Your task to perform on an android device: Go to Amazon Image 0: 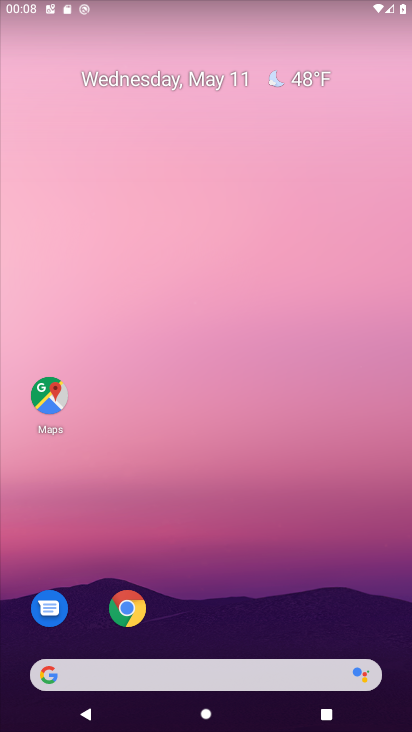
Step 0: click (136, 605)
Your task to perform on an android device: Go to Amazon Image 1: 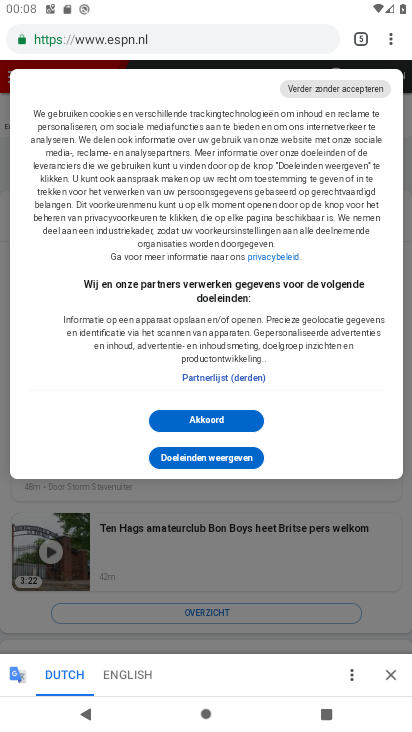
Step 1: click (356, 26)
Your task to perform on an android device: Go to Amazon Image 2: 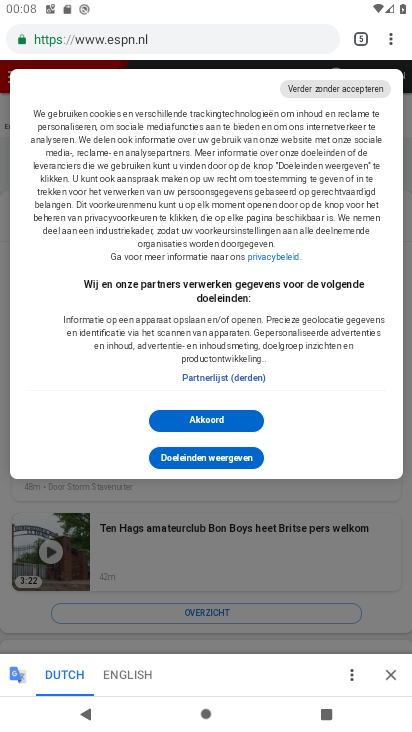
Step 2: click (356, 26)
Your task to perform on an android device: Go to Amazon Image 3: 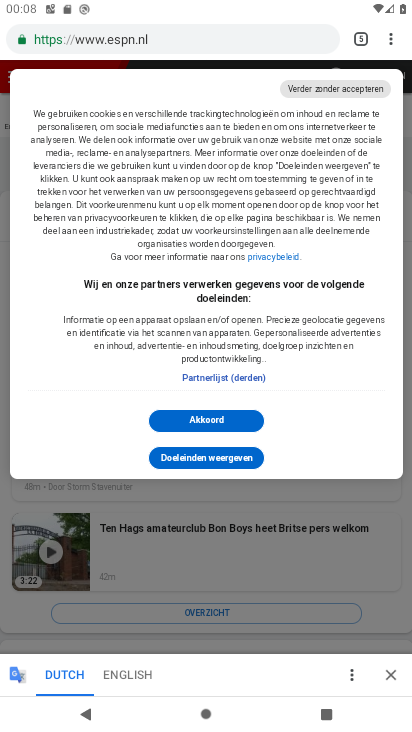
Step 3: click (361, 46)
Your task to perform on an android device: Go to Amazon Image 4: 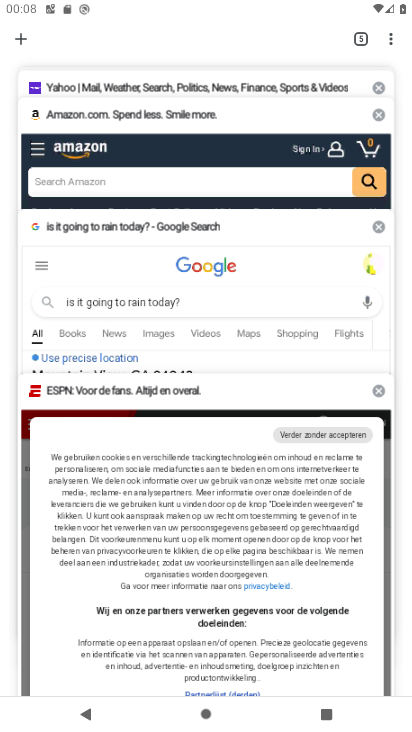
Step 4: click (253, 176)
Your task to perform on an android device: Go to Amazon Image 5: 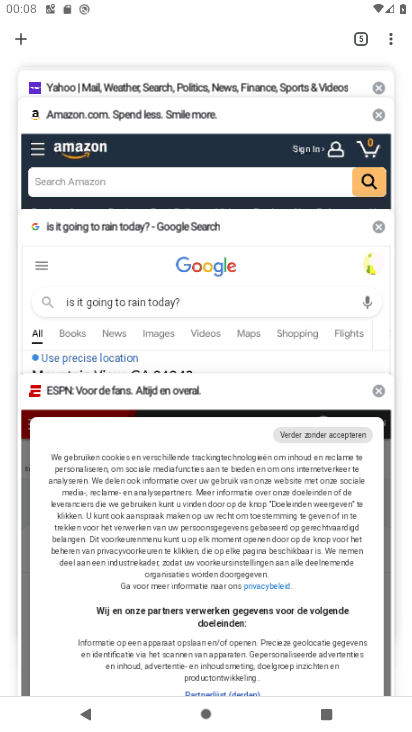
Step 5: click (253, 176)
Your task to perform on an android device: Go to Amazon Image 6: 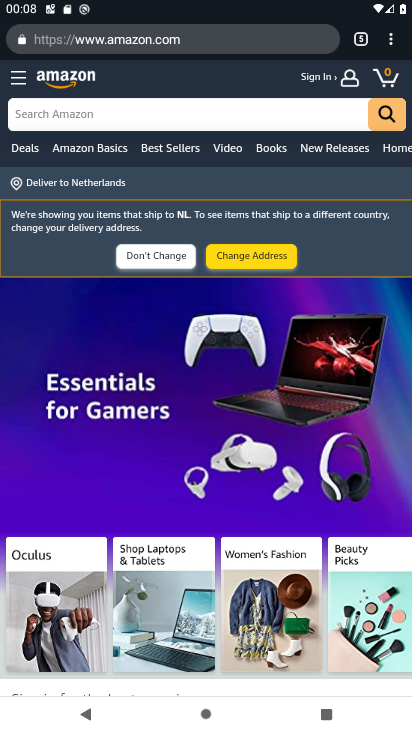
Step 6: task complete